Your task to perform on an android device: Open Google Maps Image 0: 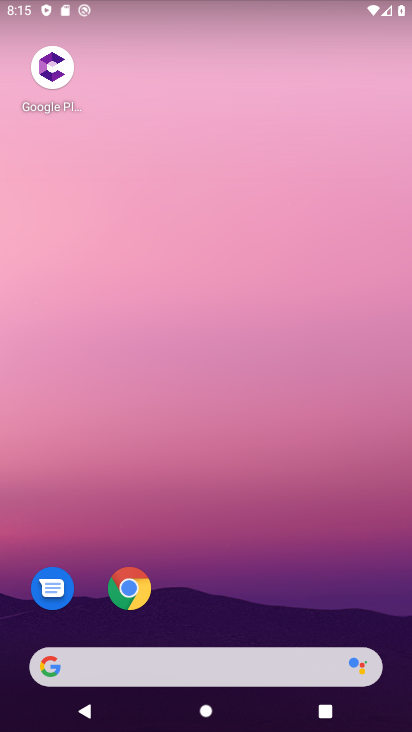
Step 0: drag from (281, 584) to (281, 17)
Your task to perform on an android device: Open Google Maps Image 1: 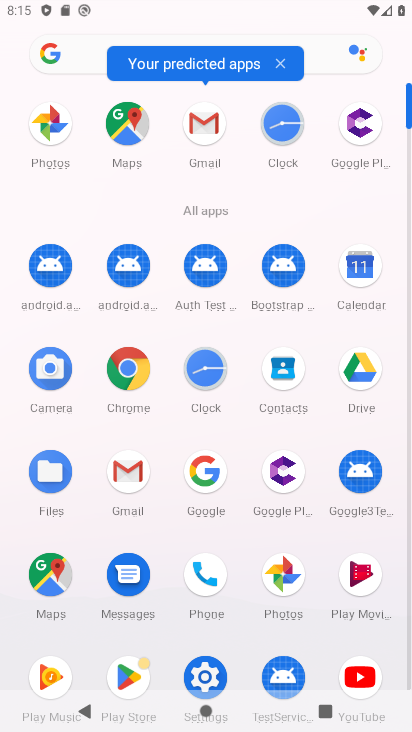
Step 1: click (49, 568)
Your task to perform on an android device: Open Google Maps Image 2: 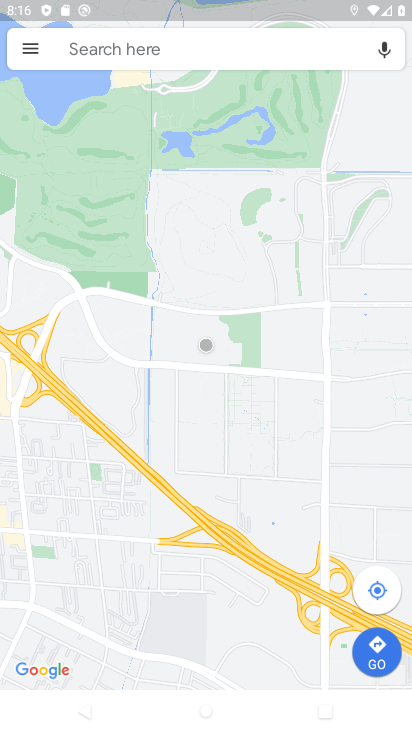
Step 2: task complete